Your task to perform on an android device: See recent photos Image 0: 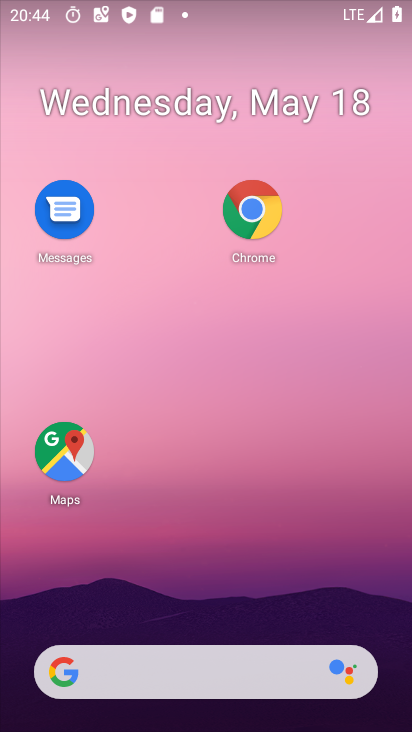
Step 0: drag from (190, 620) to (316, 47)
Your task to perform on an android device: See recent photos Image 1: 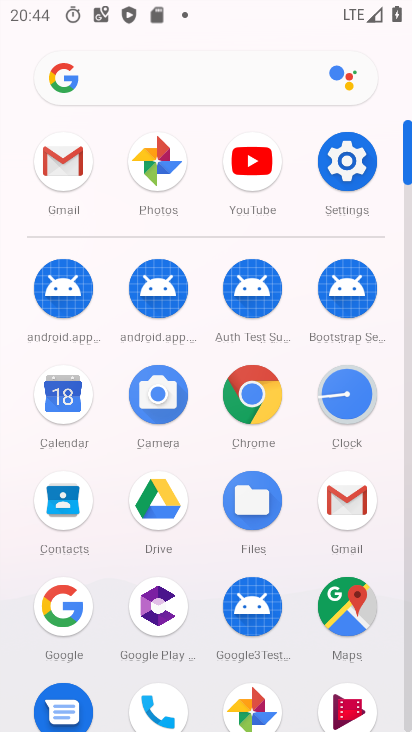
Step 1: click (144, 174)
Your task to perform on an android device: See recent photos Image 2: 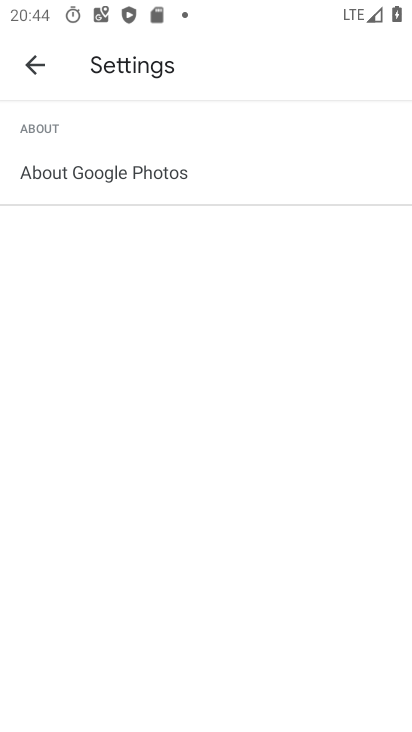
Step 2: click (43, 80)
Your task to perform on an android device: See recent photos Image 3: 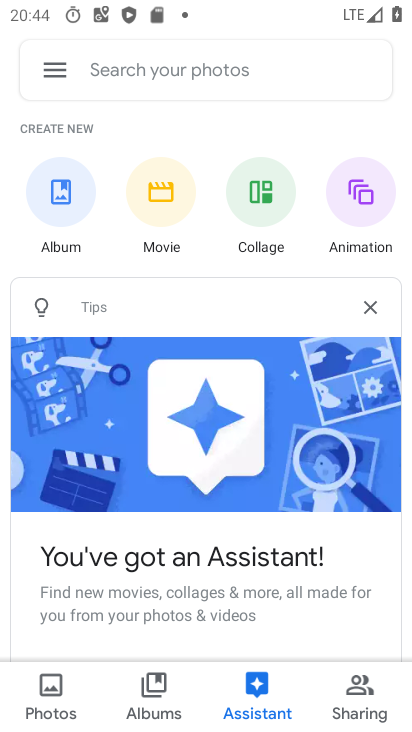
Step 3: click (30, 699)
Your task to perform on an android device: See recent photos Image 4: 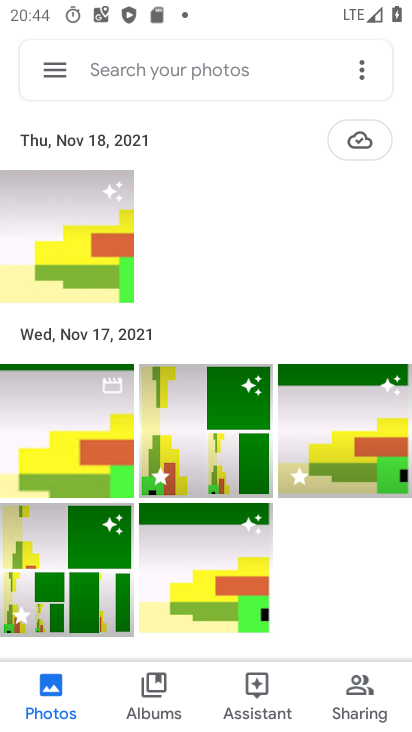
Step 4: task complete